Your task to perform on an android device: set default search engine in the chrome app Image 0: 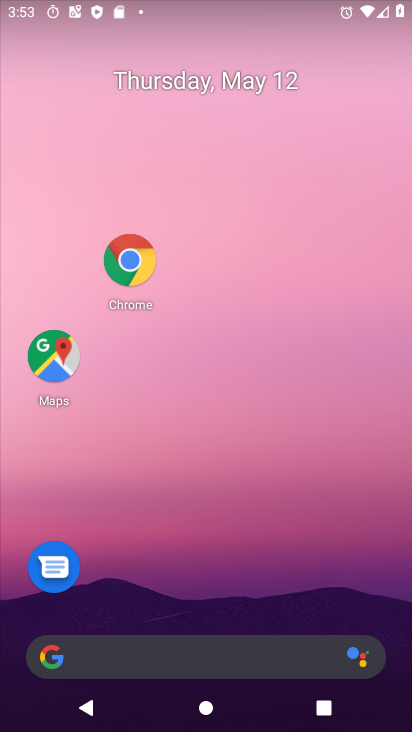
Step 0: press home button
Your task to perform on an android device: set default search engine in the chrome app Image 1: 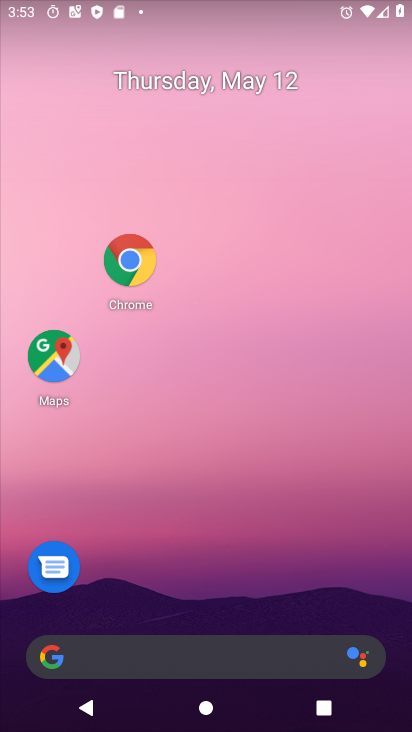
Step 1: click (117, 266)
Your task to perform on an android device: set default search engine in the chrome app Image 2: 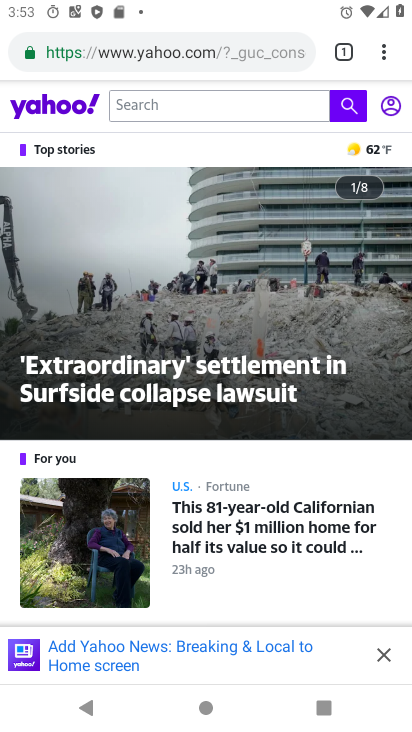
Step 2: click (389, 50)
Your task to perform on an android device: set default search engine in the chrome app Image 3: 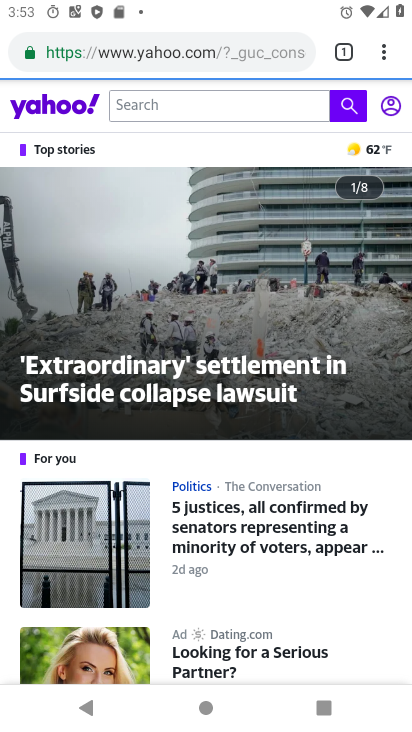
Step 3: click (386, 49)
Your task to perform on an android device: set default search engine in the chrome app Image 4: 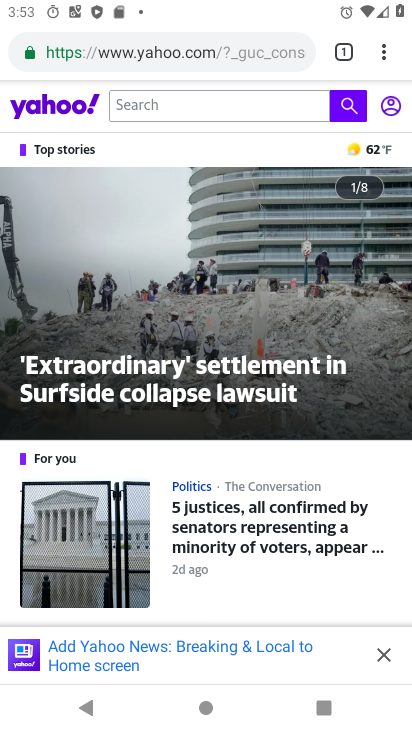
Step 4: click (378, 43)
Your task to perform on an android device: set default search engine in the chrome app Image 5: 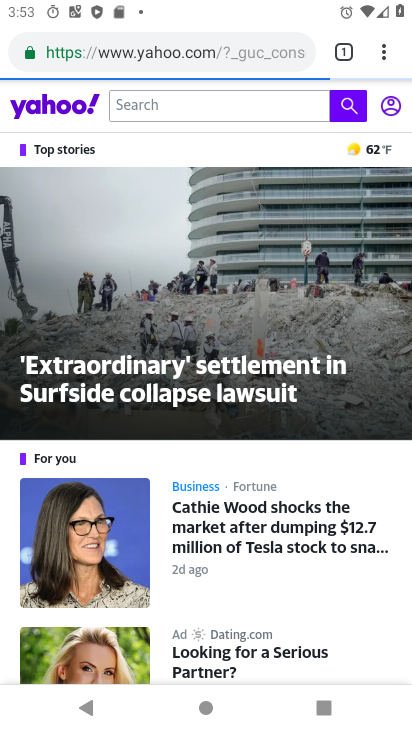
Step 5: click (383, 54)
Your task to perform on an android device: set default search engine in the chrome app Image 6: 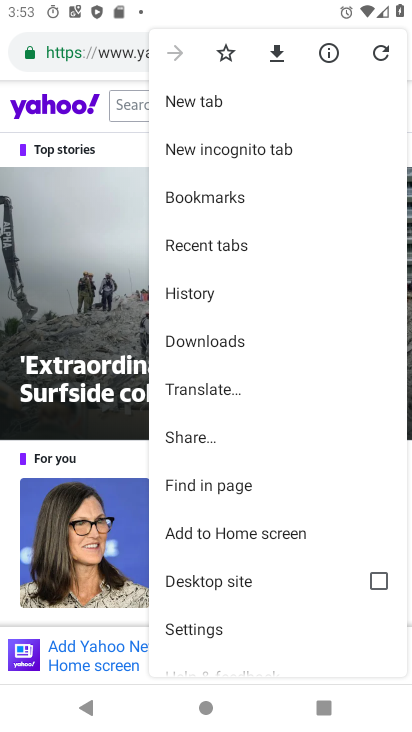
Step 6: click (197, 624)
Your task to perform on an android device: set default search engine in the chrome app Image 7: 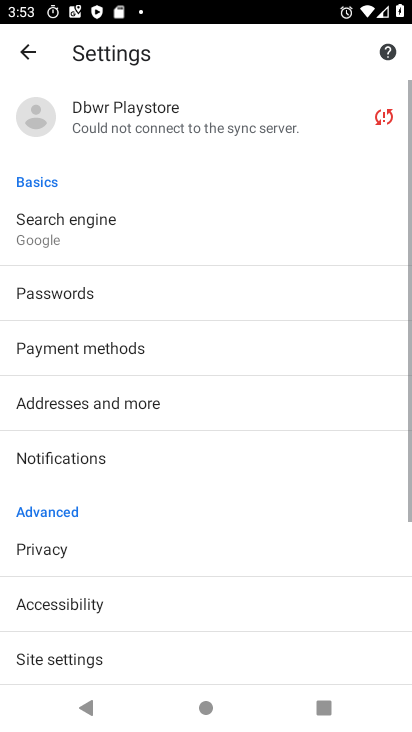
Step 7: click (46, 228)
Your task to perform on an android device: set default search engine in the chrome app Image 8: 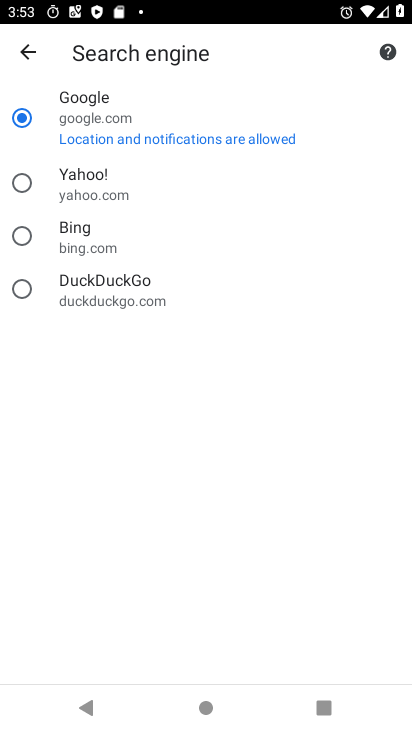
Step 8: task complete